Your task to perform on an android device: Search for "bose soundlink" on amazon.com, select the first entry, and add it to the cart. Image 0: 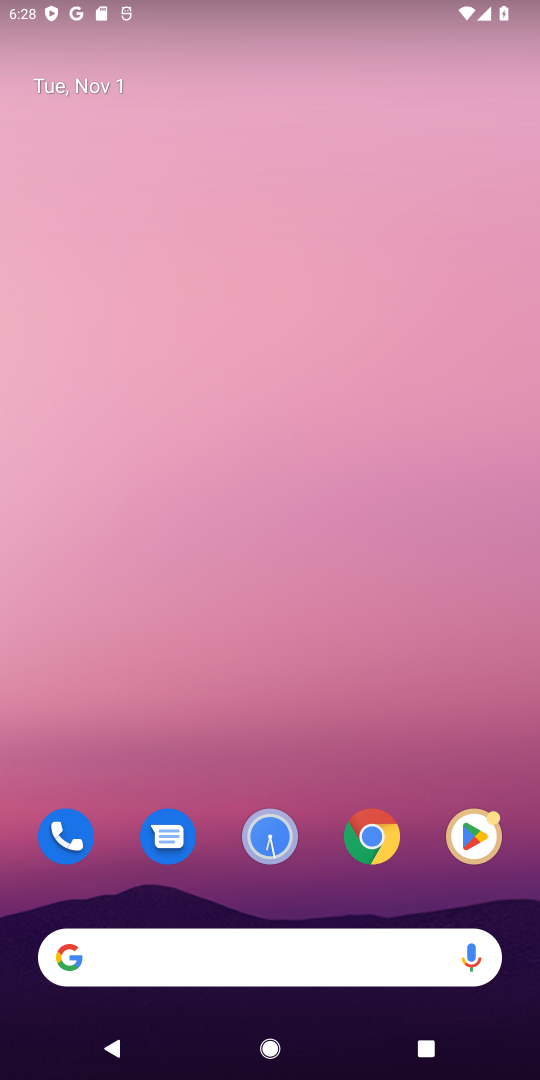
Step 0: press home button
Your task to perform on an android device: Search for "bose soundlink" on amazon.com, select the first entry, and add it to the cart. Image 1: 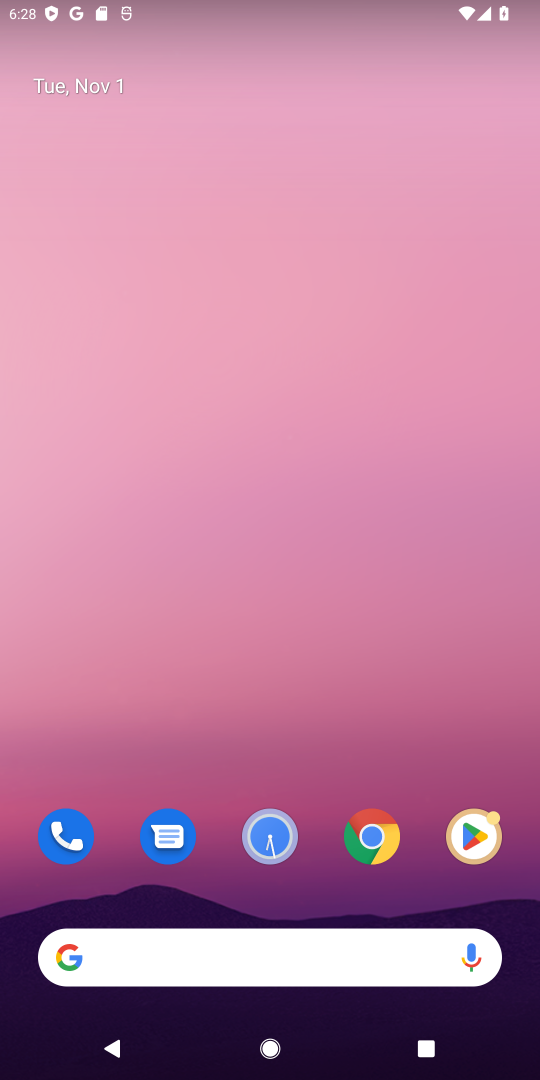
Step 1: drag from (317, 782) to (301, 95)
Your task to perform on an android device: Search for "bose soundlink" on amazon.com, select the first entry, and add it to the cart. Image 2: 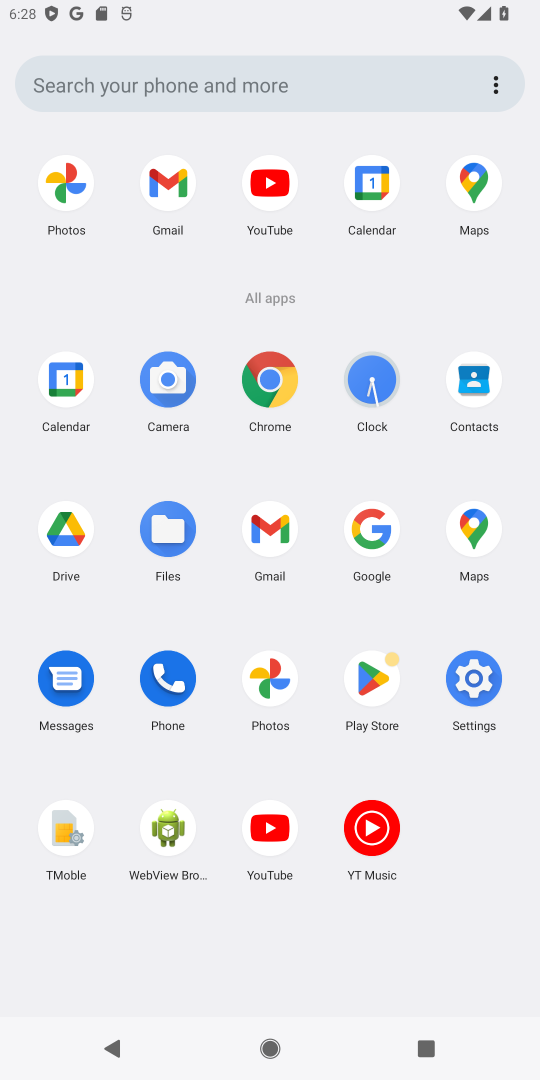
Step 2: click (264, 376)
Your task to perform on an android device: Search for "bose soundlink" on amazon.com, select the first entry, and add it to the cart. Image 3: 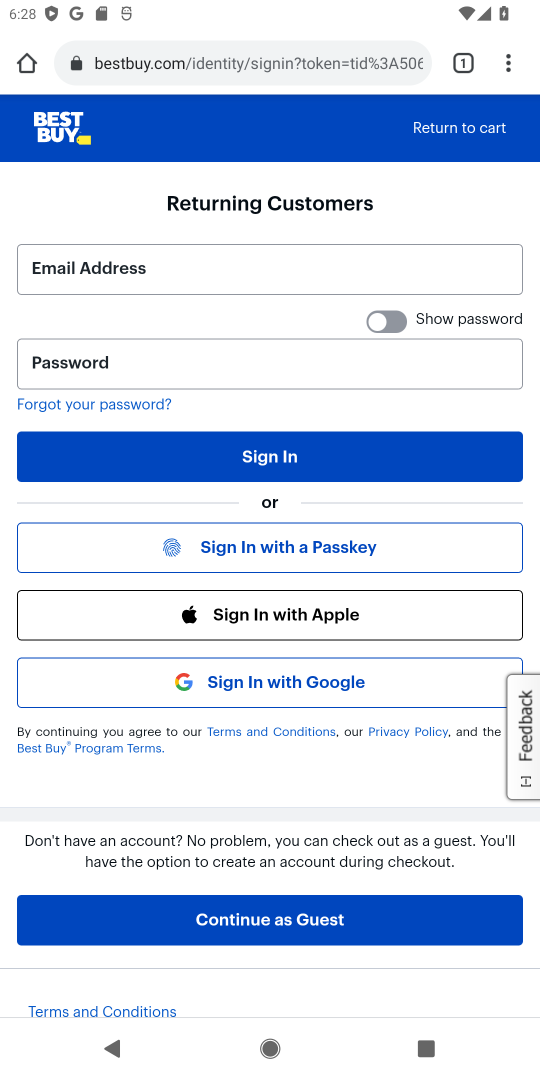
Step 3: press back button
Your task to perform on an android device: Search for "bose soundlink" on amazon.com, select the first entry, and add it to the cart. Image 4: 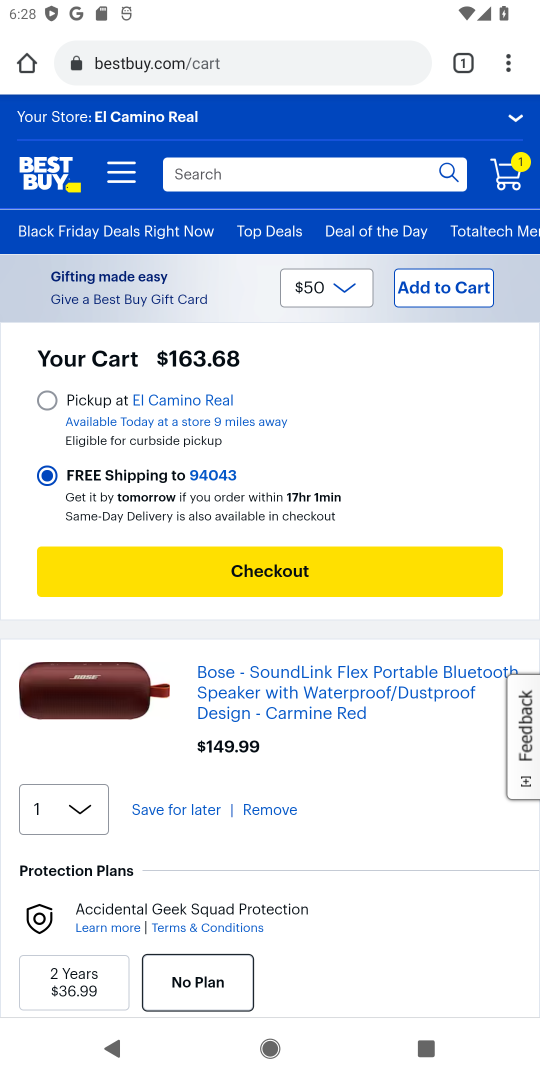
Step 4: click (196, 62)
Your task to perform on an android device: Search for "bose soundlink" on amazon.com, select the first entry, and add it to the cart. Image 5: 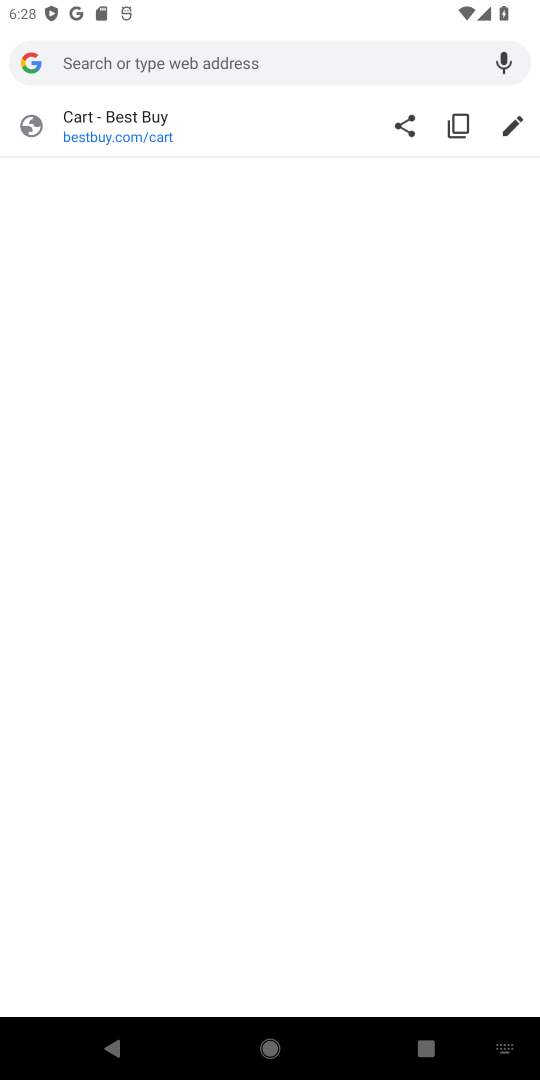
Step 5: type "amazon.com"
Your task to perform on an android device: Search for "bose soundlink" on amazon.com, select the first entry, and add it to the cart. Image 6: 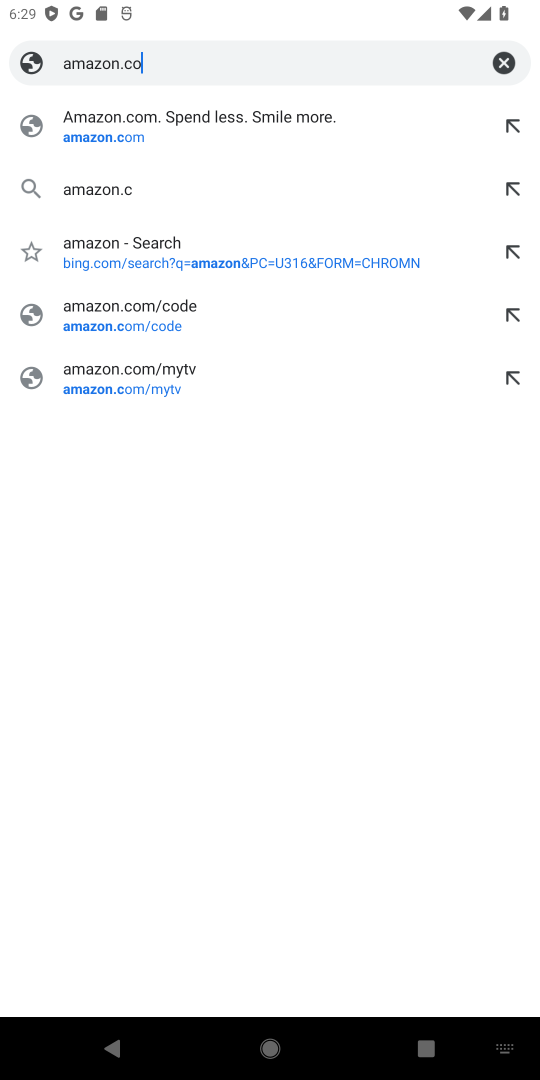
Step 6: type ""
Your task to perform on an android device: Search for "bose soundlink" on amazon.com, select the first entry, and add it to the cart. Image 7: 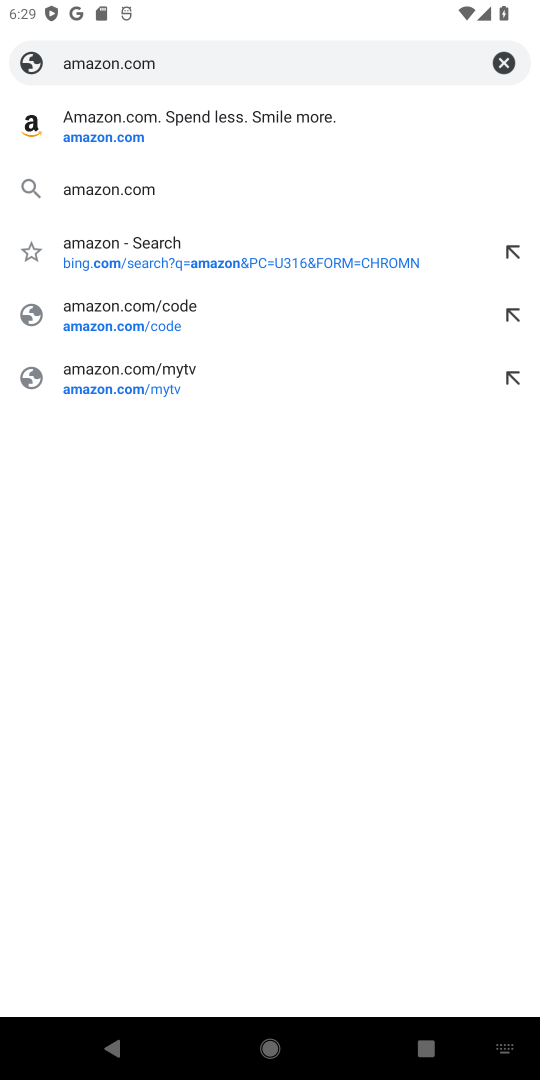
Step 7: click (152, 128)
Your task to perform on an android device: Search for "bose soundlink" on amazon.com, select the first entry, and add it to the cart. Image 8: 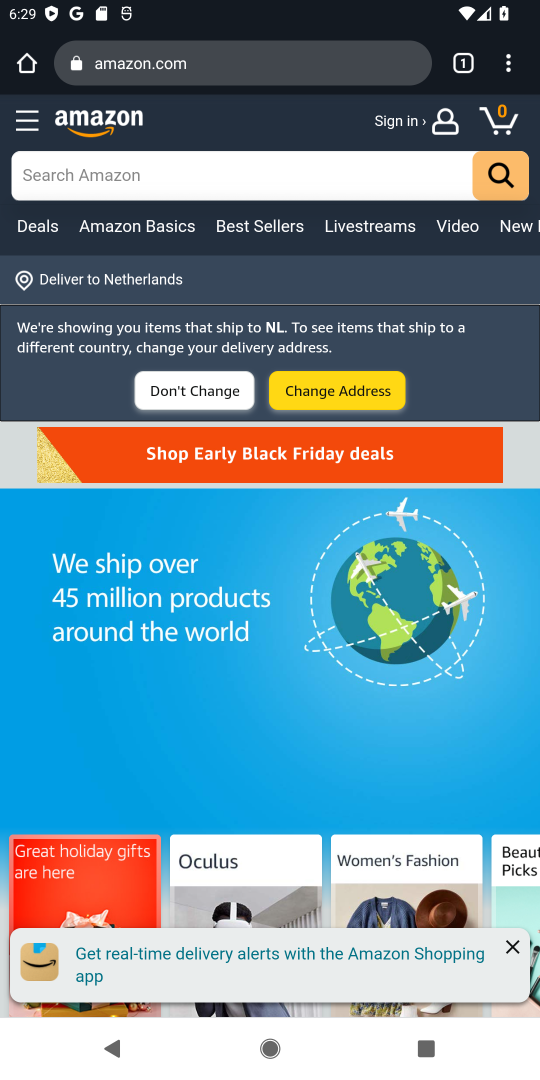
Step 8: click (115, 163)
Your task to perform on an android device: Search for "bose soundlink" on amazon.com, select the first entry, and add it to the cart. Image 9: 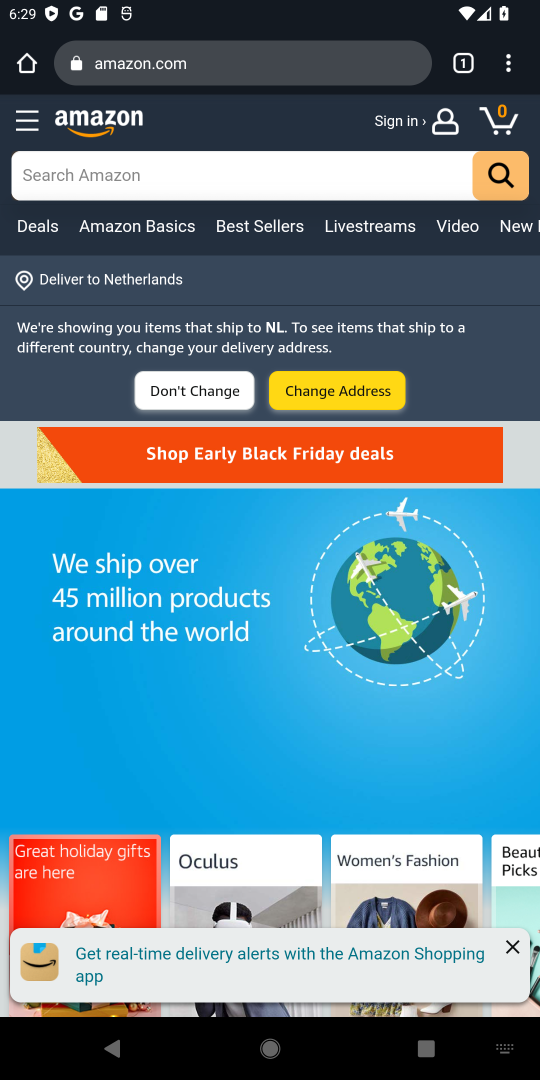
Step 9: type "bose soundlink"
Your task to perform on an android device: Search for "bose soundlink" on amazon.com, select the first entry, and add it to the cart. Image 10: 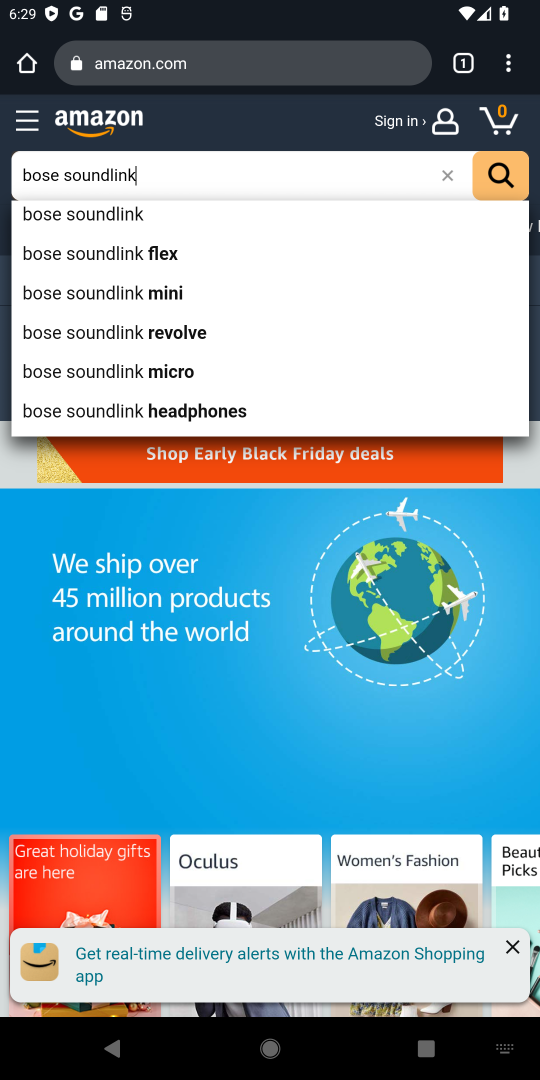
Step 10: click (158, 212)
Your task to perform on an android device: Search for "bose soundlink" on amazon.com, select the first entry, and add it to the cart. Image 11: 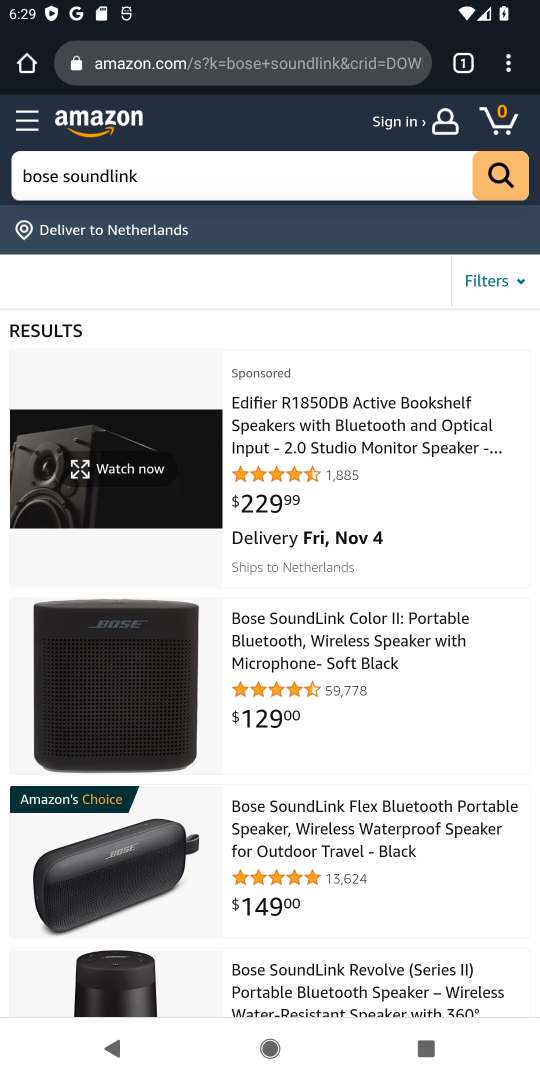
Step 11: click (503, 179)
Your task to perform on an android device: Search for "bose soundlink" on amazon.com, select the first entry, and add it to the cart. Image 12: 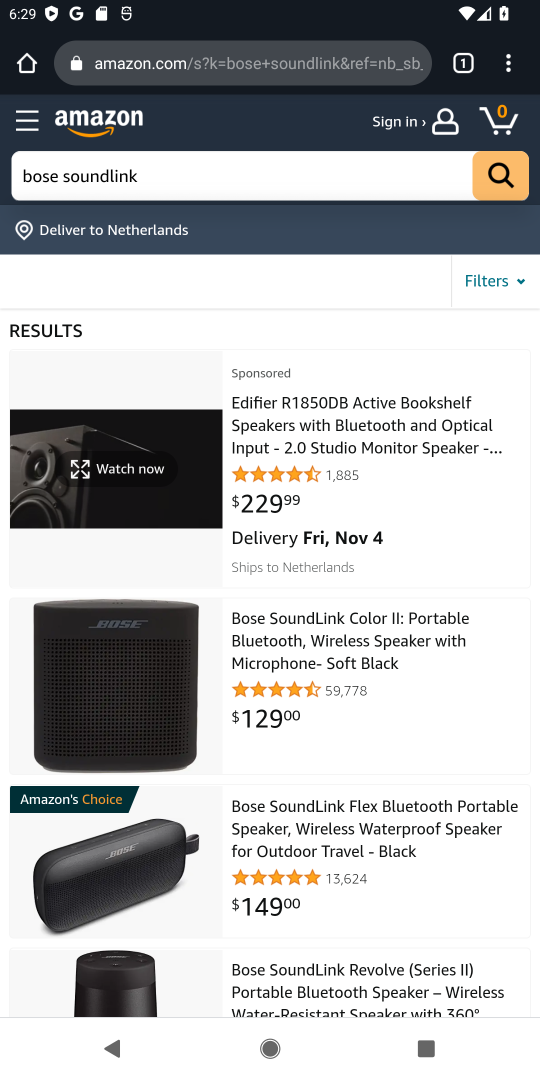
Step 12: click (321, 624)
Your task to perform on an android device: Search for "bose soundlink" on amazon.com, select the first entry, and add it to the cart. Image 13: 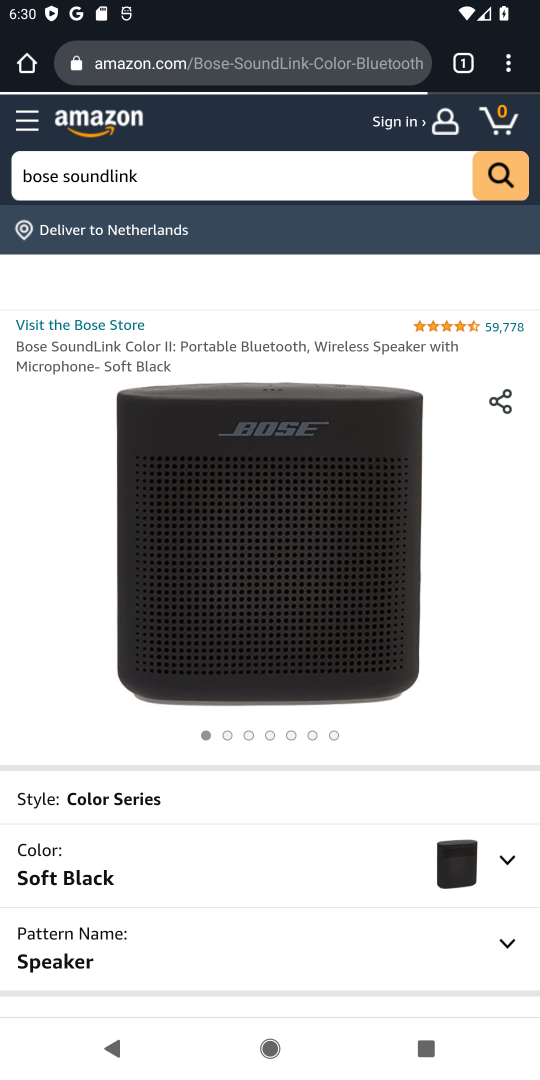
Step 13: drag from (228, 930) to (287, 373)
Your task to perform on an android device: Search for "bose soundlink" on amazon.com, select the first entry, and add it to the cart. Image 14: 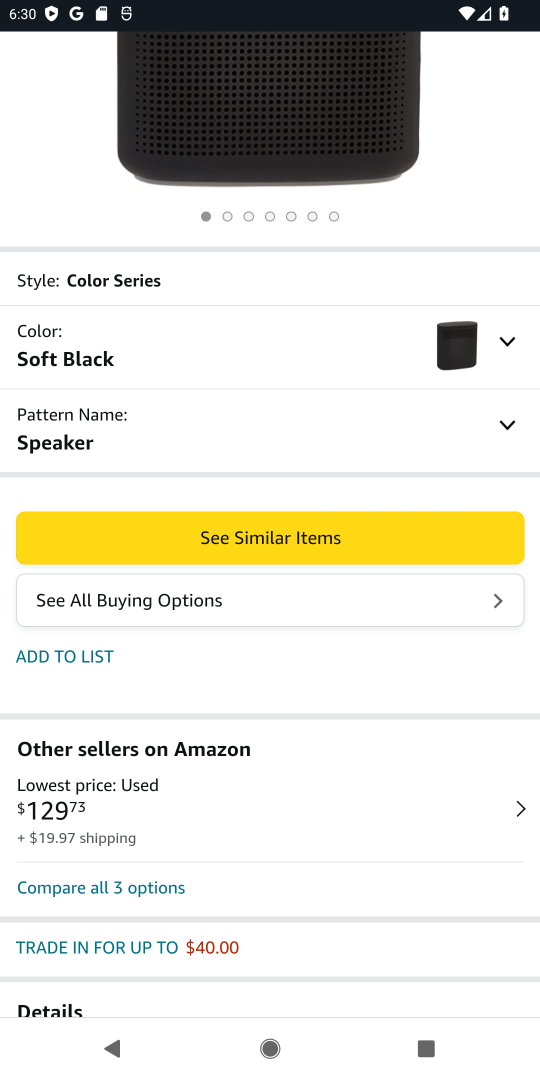
Step 14: press back button
Your task to perform on an android device: Search for "bose soundlink" on amazon.com, select the first entry, and add it to the cart. Image 15: 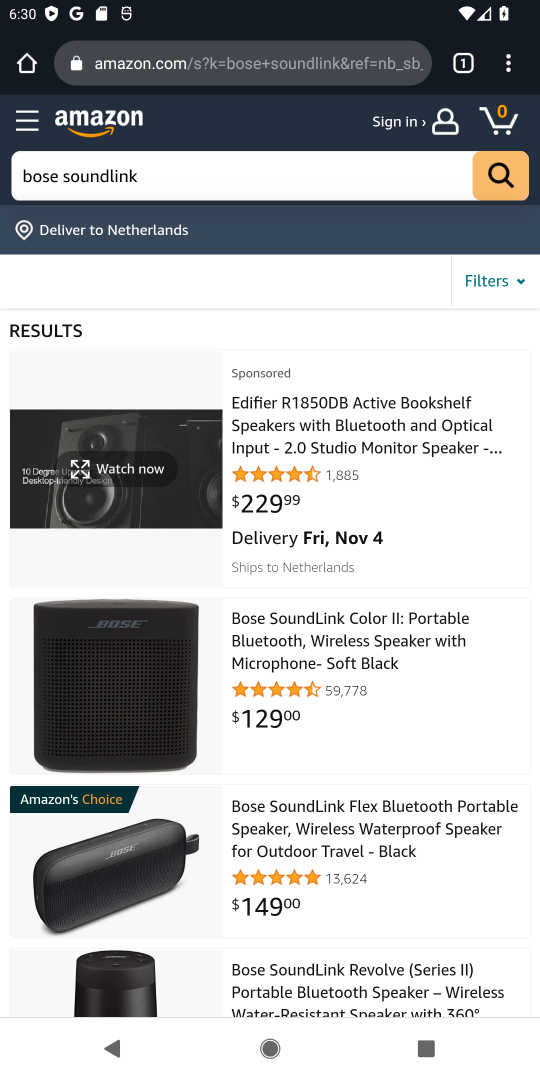
Step 15: click (321, 828)
Your task to perform on an android device: Search for "bose soundlink" on amazon.com, select the first entry, and add it to the cart. Image 16: 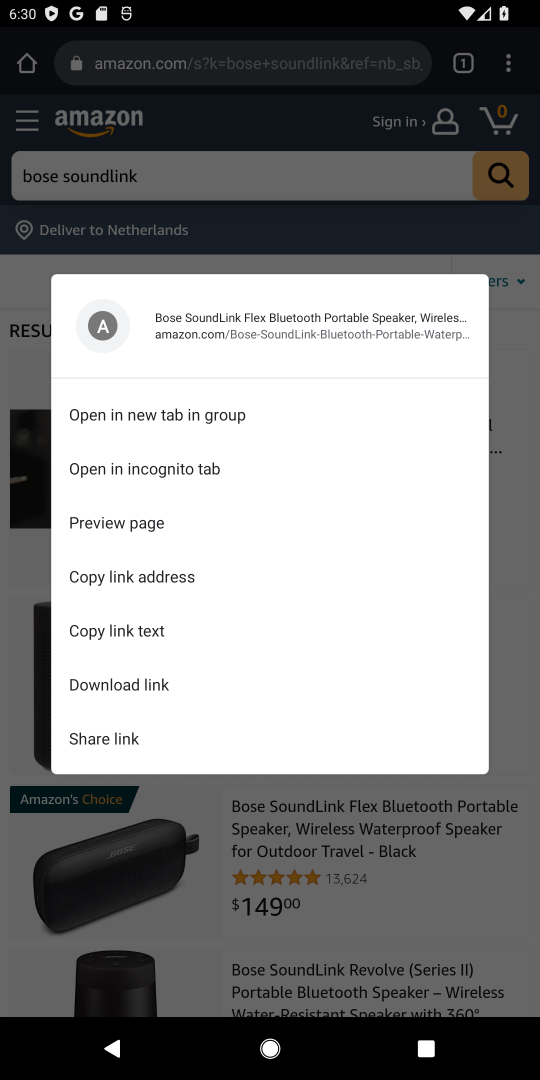
Step 16: click (315, 863)
Your task to perform on an android device: Search for "bose soundlink" on amazon.com, select the first entry, and add it to the cart. Image 17: 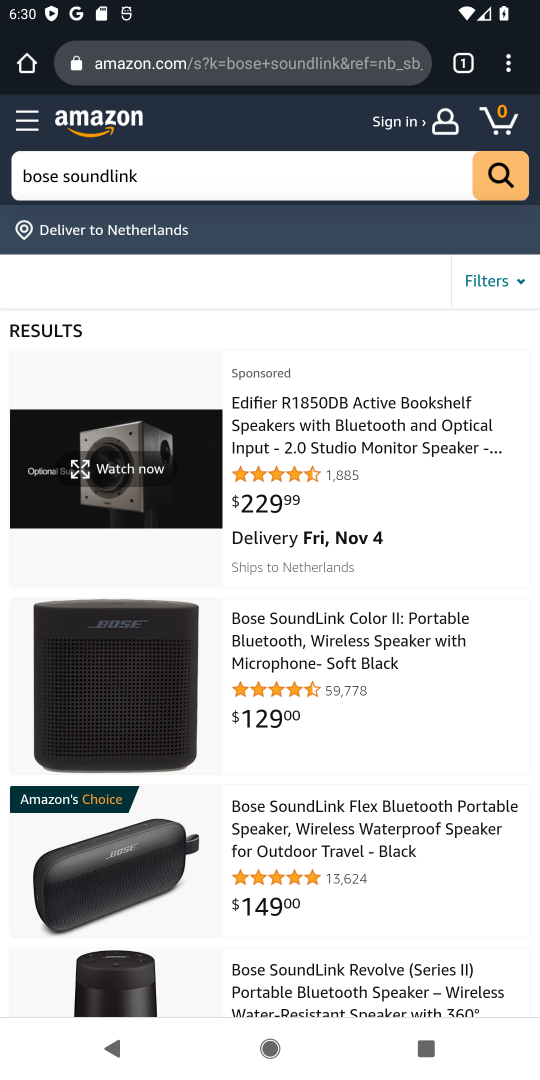
Step 17: click (276, 817)
Your task to perform on an android device: Search for "bose soundlink" on amazon.com, select the first entry, and add it to the cart. Image 18: 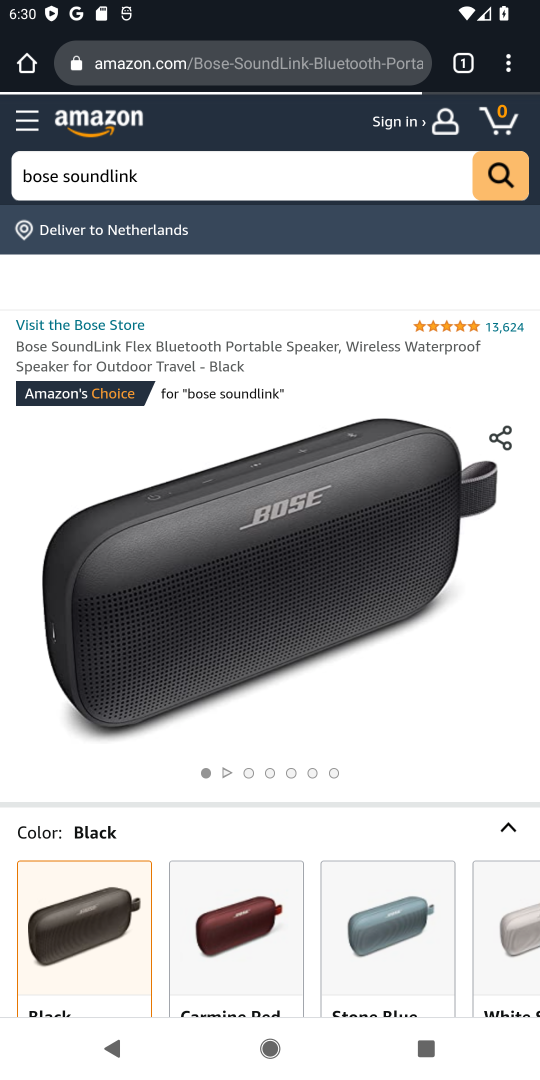
Step 18: drag from (266, 831) to (256, 340)
Your task to perform on an android device: Search for "bose soundlink" on amazon.com, select the first entry, and add it to the cart. Image 19: 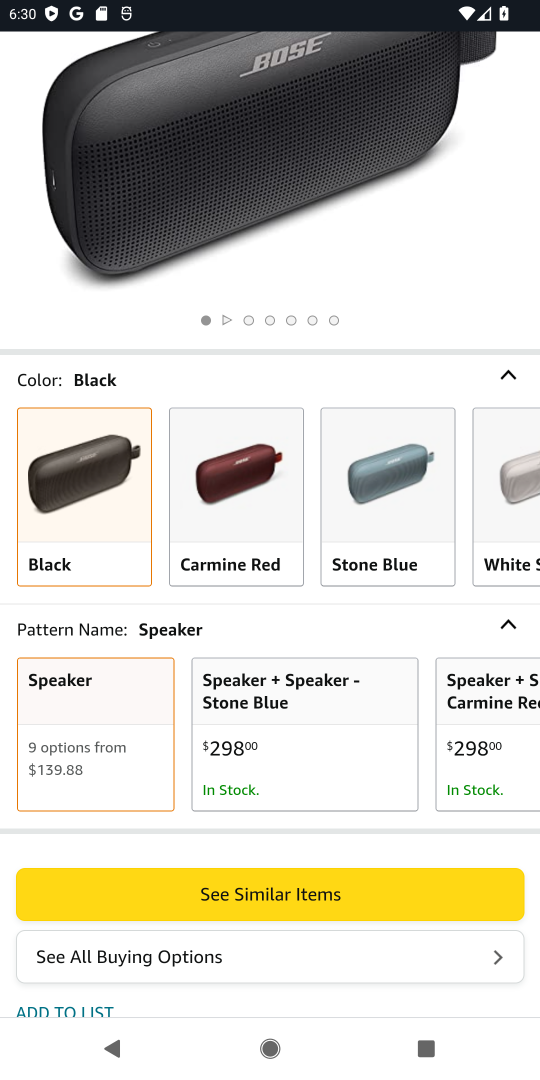
Step 19: drag from (291, 845) to (326, 238)
Your task to perform on an android device: Search for "bose soundlink" on amazon.com, select the first entry, and add it to the cart. Image 20: 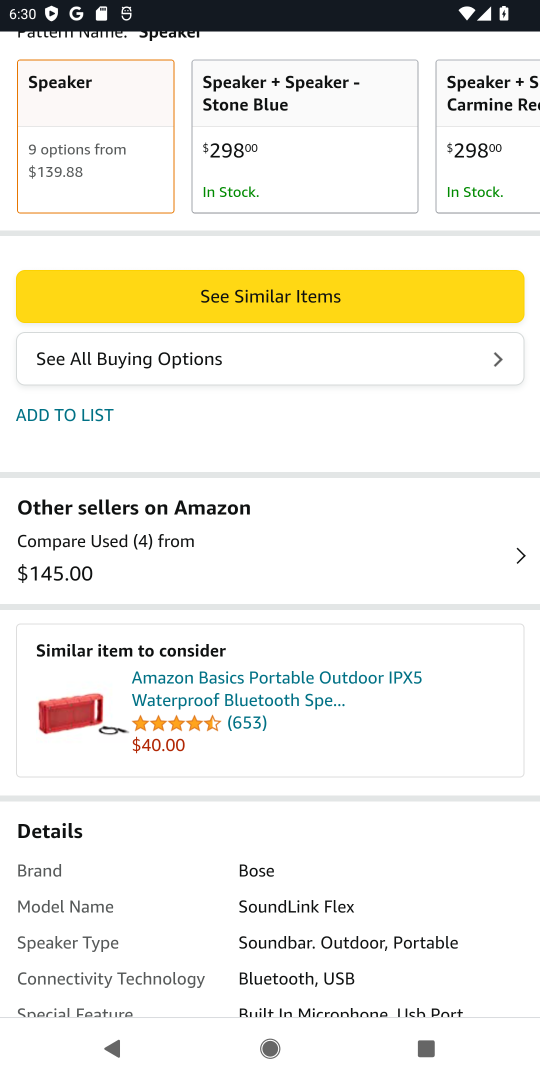
Step 20: press back button
Your task to perform on an android device: Search for "bose soundlink" on amazon.com, select the first entry, and add it to the cart. Image 21: 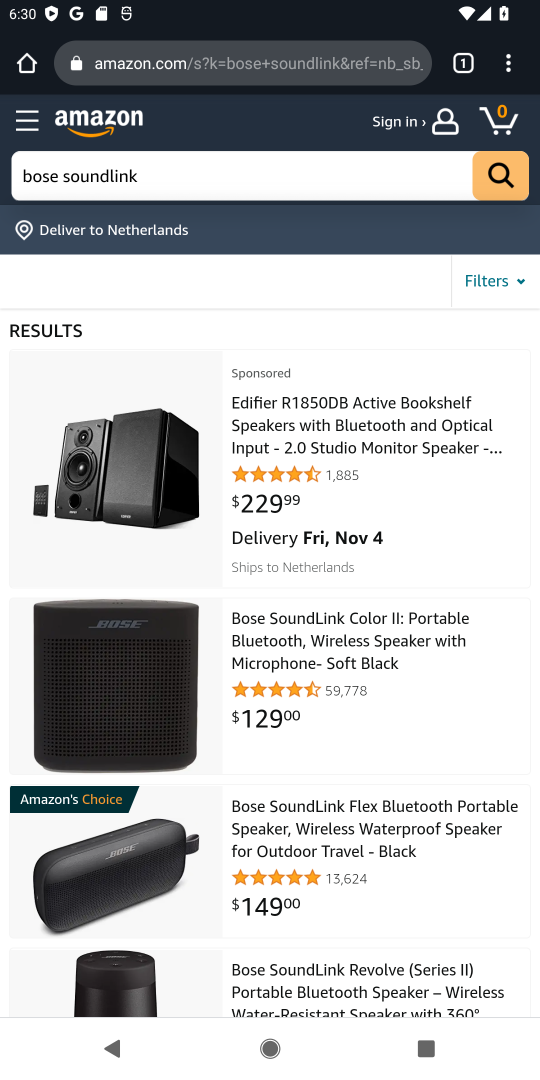
Step 21: drag from (200, 975) to (199, 440)
Your task to perform on an android device: Search for "bose soundlink" on amazon.com, select the first entry, and add it to the cart. Image 22: 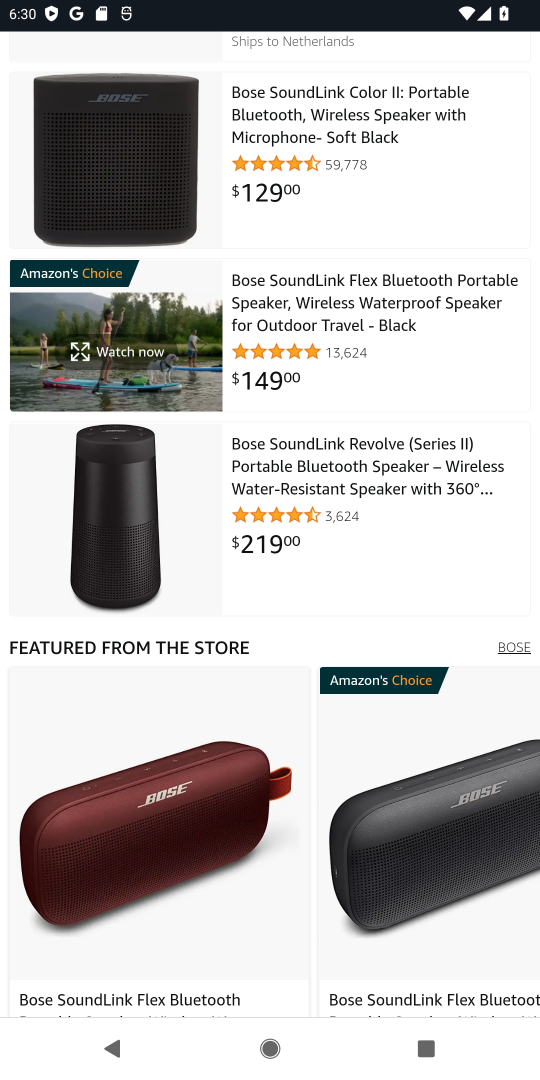
Step 22: click (199, 477)
Your task to perform on an android device: Search for "bose soundlink" on amazon.com, select the first entry, and add it to the cart. Image 23: 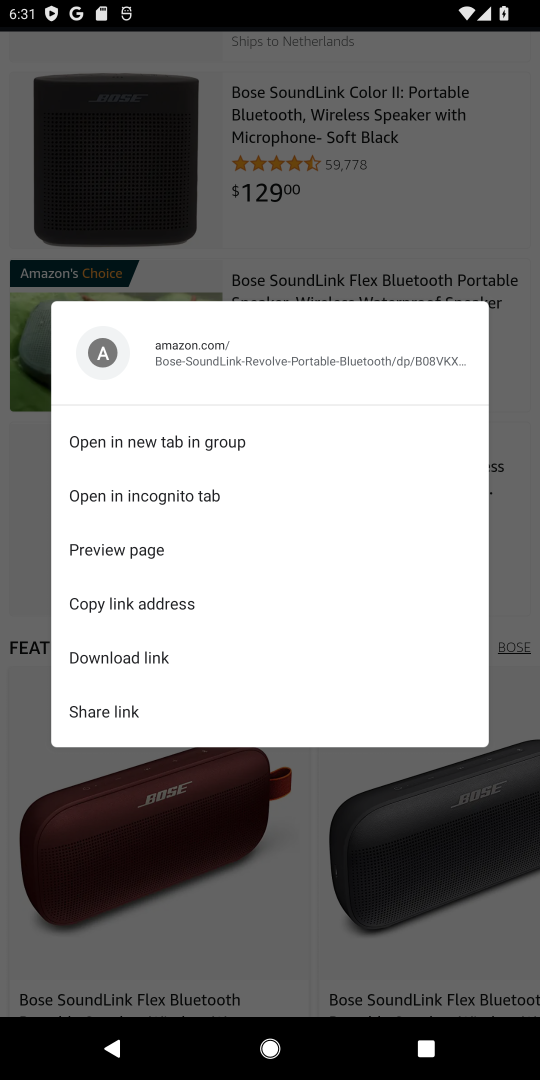
Step 23: click (28, 741)
Your task to perform on an android device: Search for "bose soundlink" on amazon.com, select the first entry, and add it to the cart. Image 24: 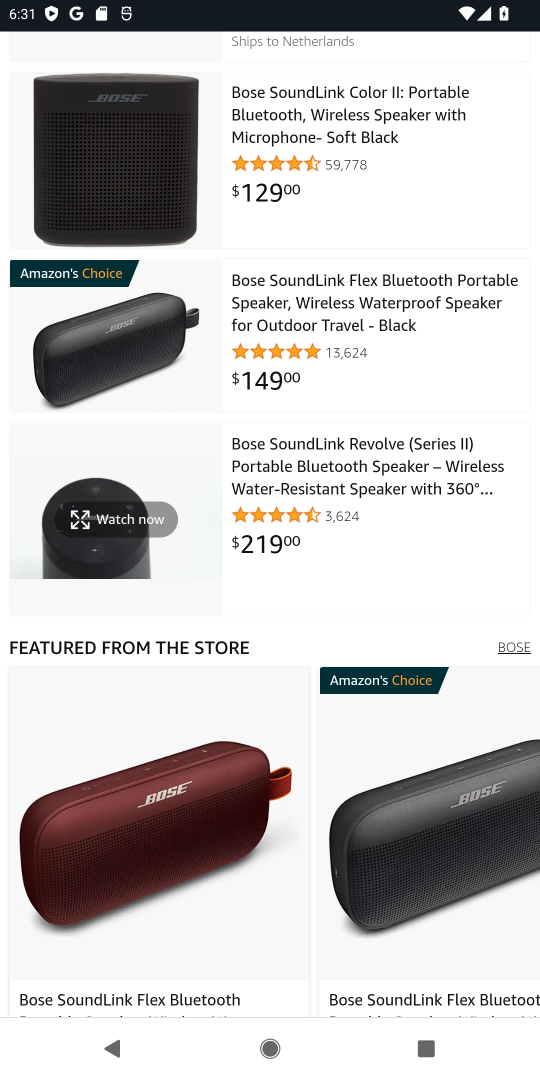
Step 24: click (386, 480)
Your task to perform on an android device: Search for "bose soundlink" on amazon.com, select the first entry, and add it to the cart. Image 25: 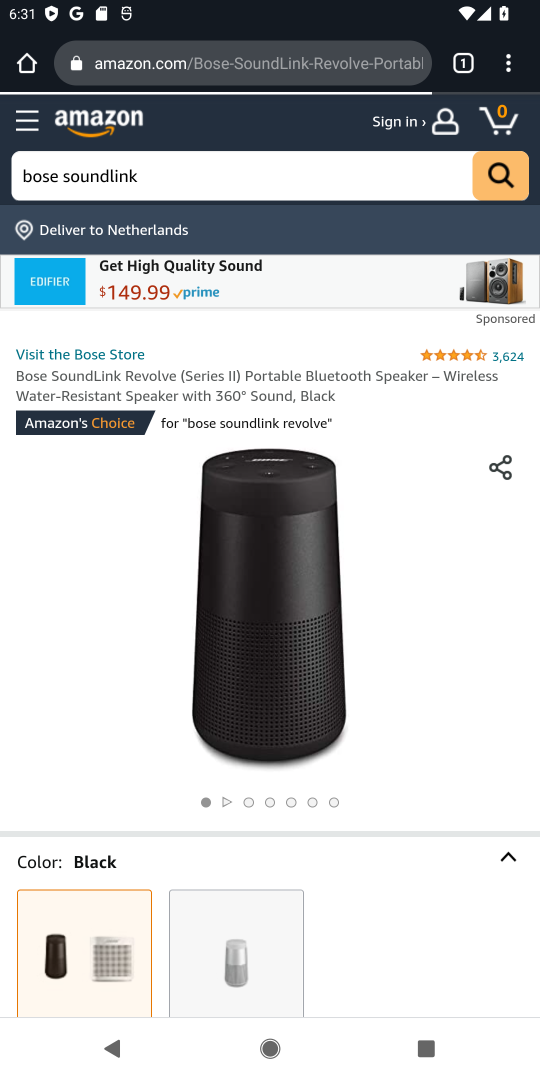
Step 25: drag from (358, 838) to (342, 226)
Your task to perform on an android device: Search for "bose soundlink" on amazon.com, select the first entry, and add it to the cart. Image 26: 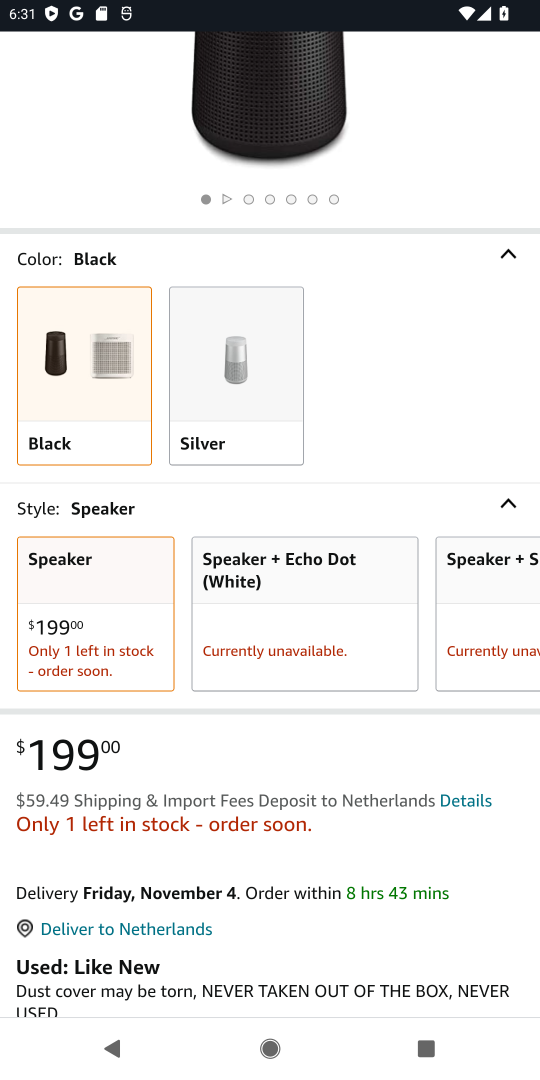
Step 26: drag from (303, 624) to (305, 275)
Your task to perform on an android device: Search for "bose soundlink" on amazon.com, select the first entry, and add it to the cart. Image 27: 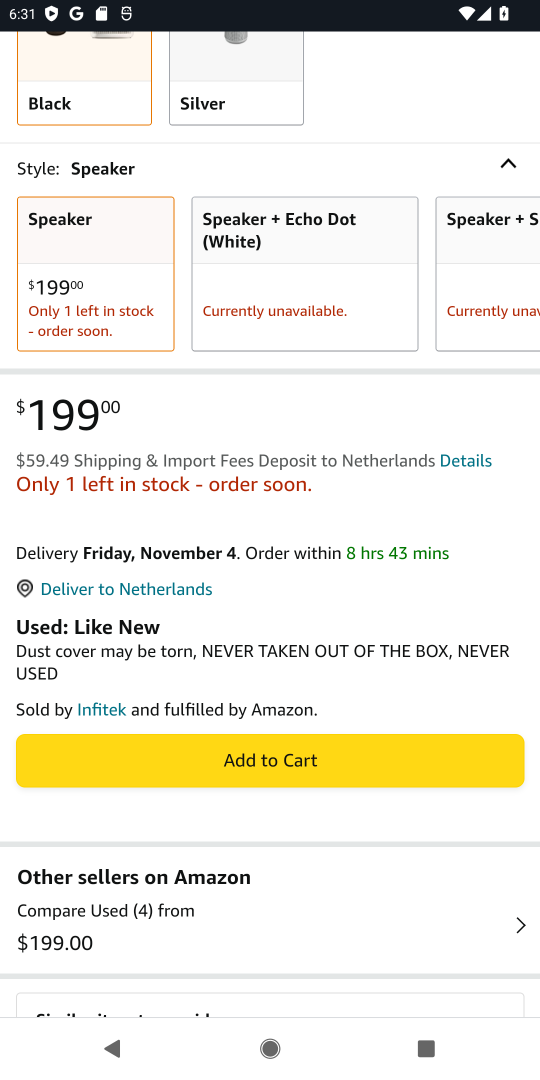
Step 27: click (272, 791)
Your task to perform on an android device: Search for "bose soundlink" on amazon.com, select the first entry, and add it to the cart. Image 28: 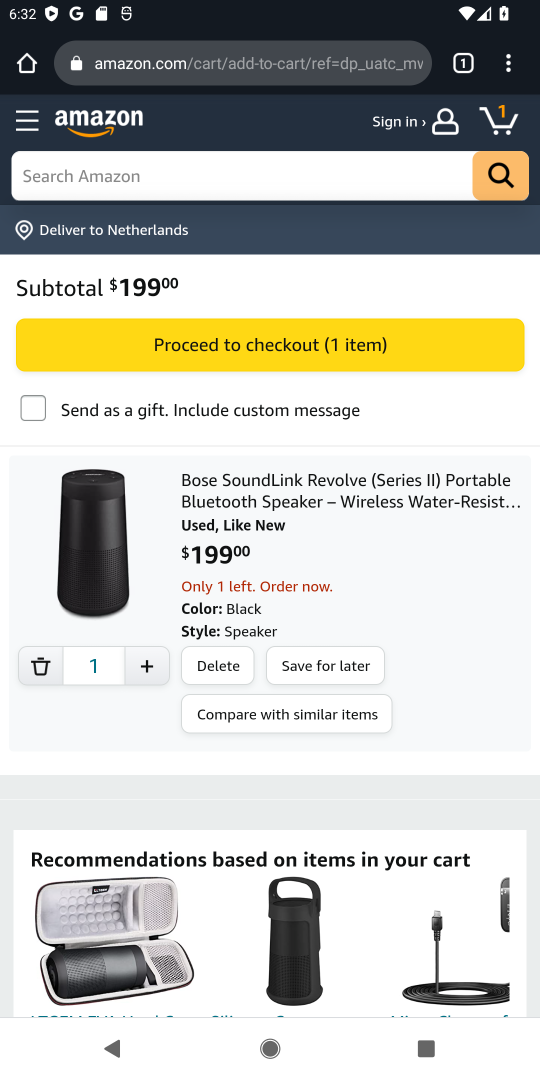
Step 28: task complete